Your task to perform on an android device: empty trash in the gmail app Image 0: 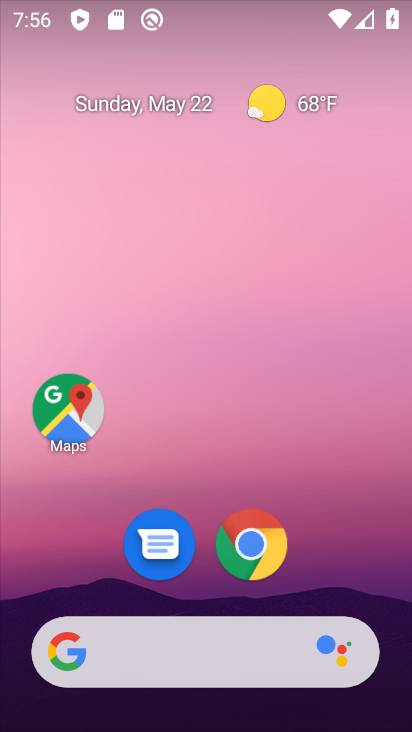
Step 0: drag from (397, 666) to (372, 171)
Your task to perform on an android device: empty trash in the gmail app Image 1: 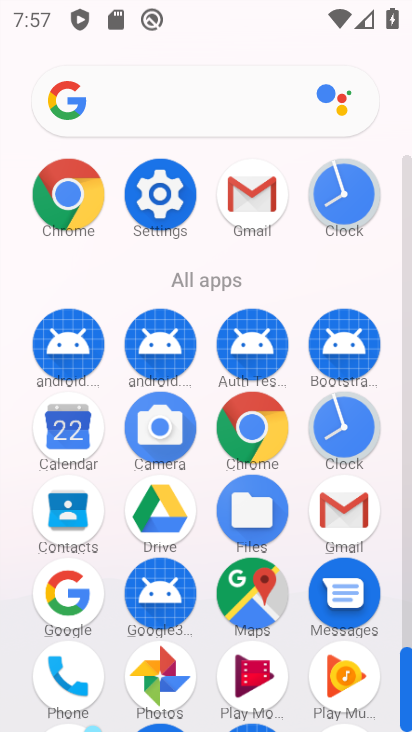
Step 1: click (329, 514)
Your task to perform on an android device: empty trash in the gmail app Image 2: 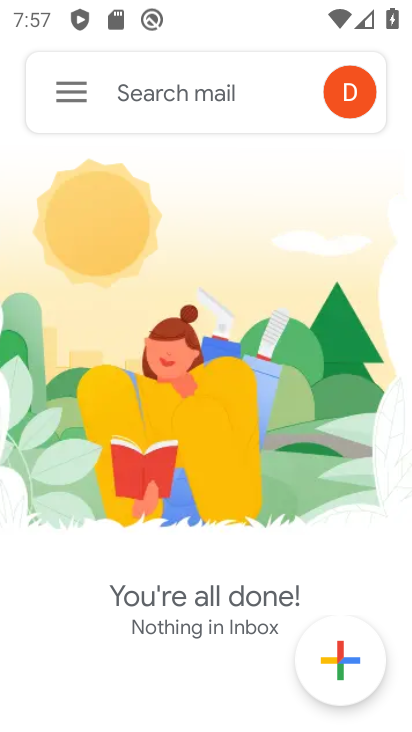
Step 2: click (67, 80)
Your task to perform on an android device: empty trash in the gmail app Image 3: 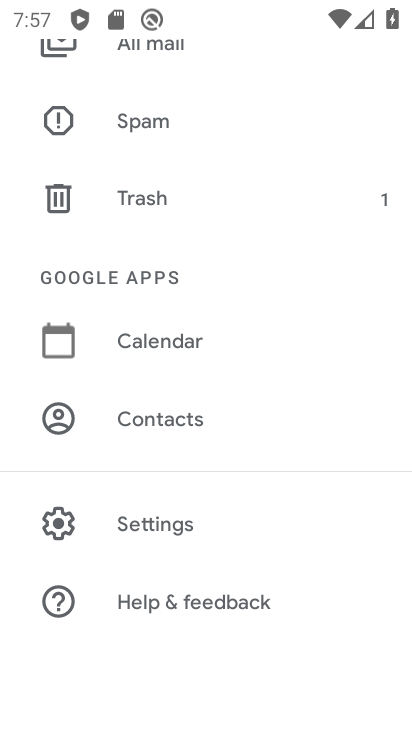
Step 3: click (133, 199)
Your task to perform on an android device: empty trash in the gmail app Image 4: 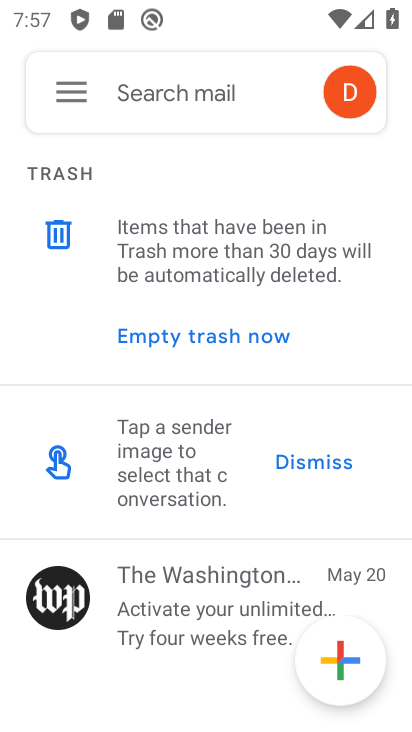
Step 4: click (197, 335)
Your task to perform on an android device: empty trash in the gmail app Image 5: 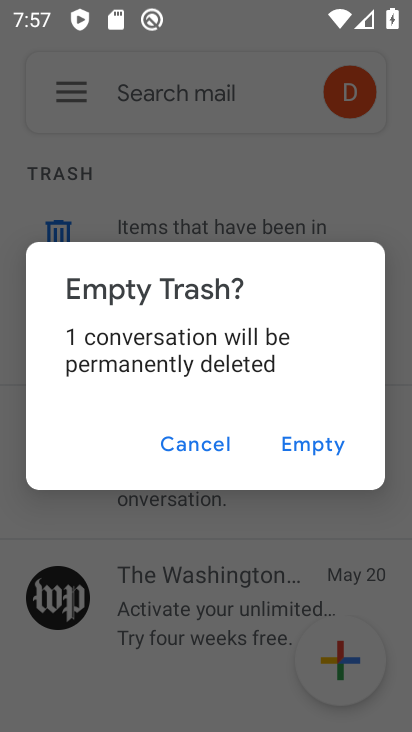
Step 5: click (311, 438)
Your task to perform on an android device: empty trash in the gmail app Image 6: 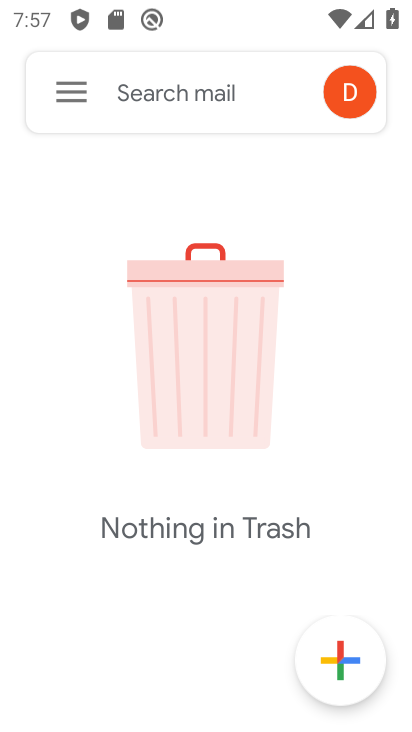
Step 6: task complete